Your task to perform on an android device: Find coffee shops on Maps Image 0: 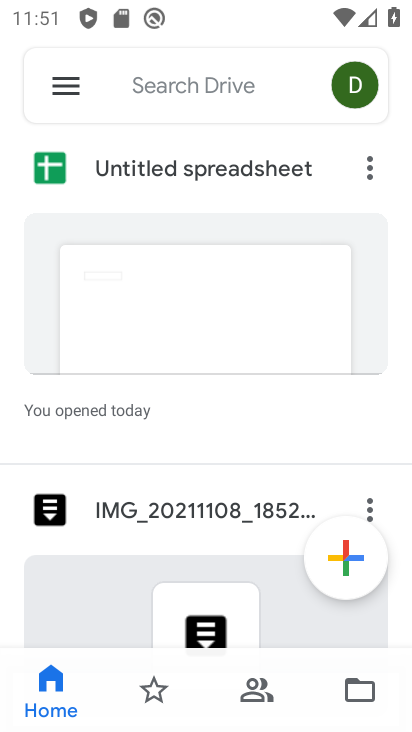
Step 0: press back button
Your task to perform on an android device: Find coffee shops on Maps Image 1: 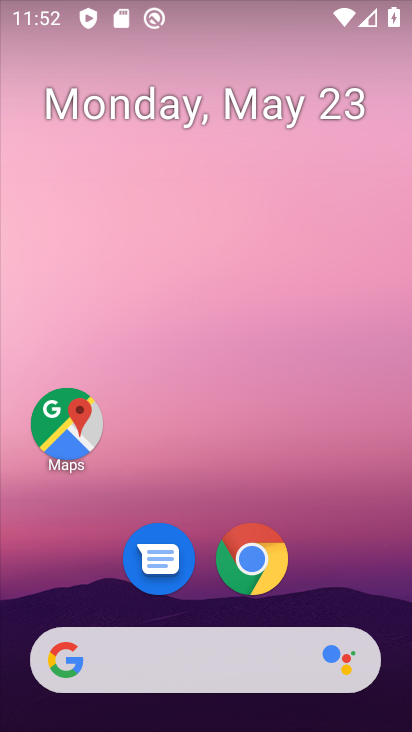
Step 1: drag from (272, 712) to (148, 9)
Your task to perform on an android device: Find coffee shops on Maps Image 2: 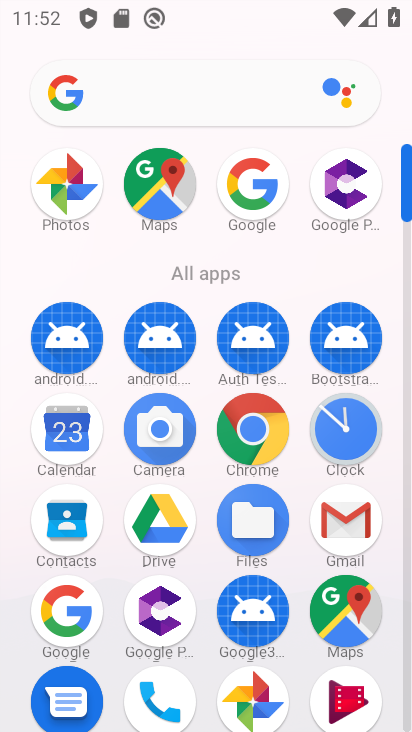
Step 2: drag from (235, 7) to (196, 3)
Your task to perform on an android device: Find coffee shops on Maps Image 3: 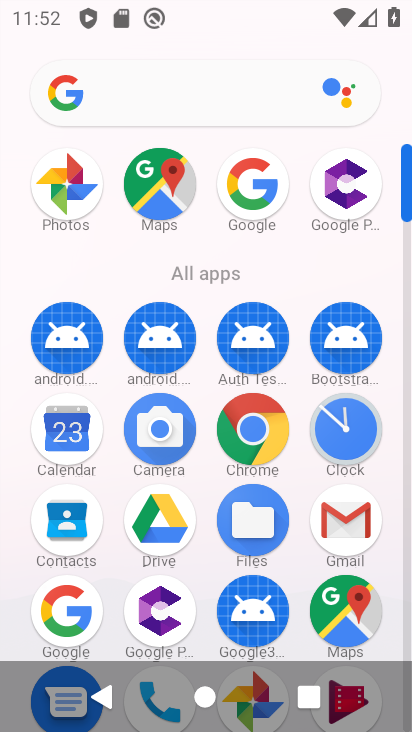
Step 3: click (348, 613)
Your task to perform on an android device: Find coffee shops on Maps Image 4: 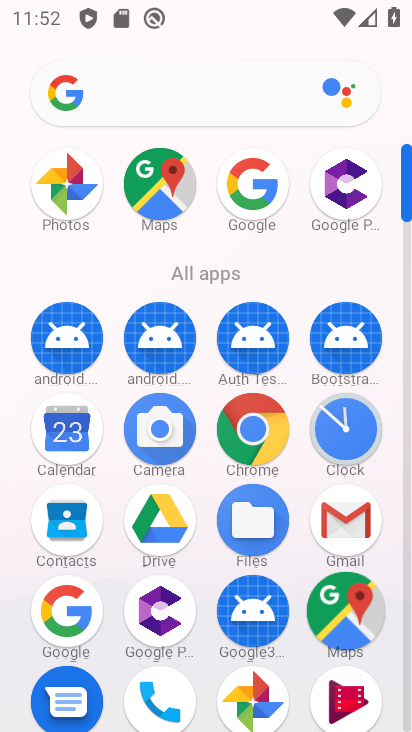
Step 4: click (354, 593)
Your task to perform on an android device: Find coffee shops on Maps Image 5: 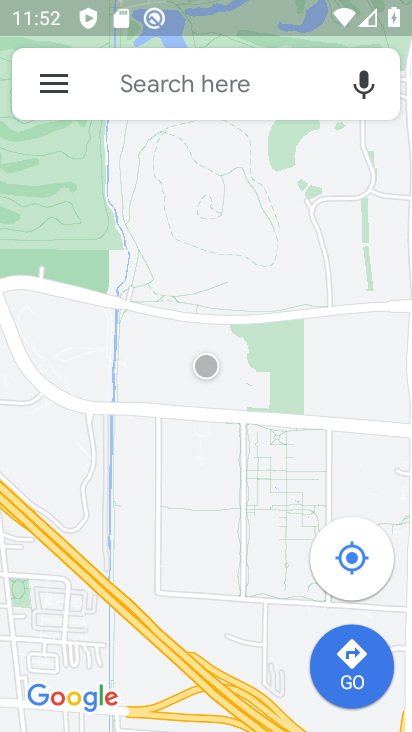
Step 5: click (66, 83)
Your task to perform on an android device: Find coffee shops on Maps Image 6: 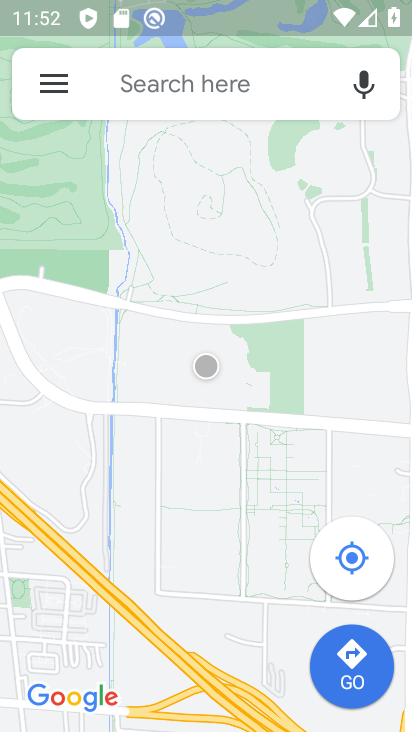
Step 6: click (115, 87)
Your task to perform on an android device: Find coffee shops on Maps Image 7: 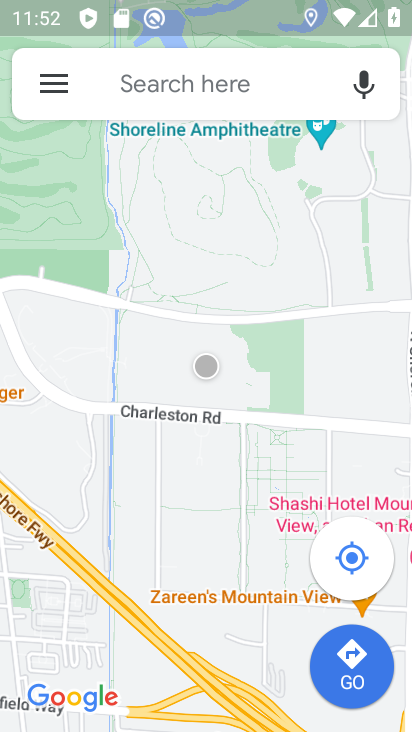
Step 7: click (158, 87)
Your task to perform on an android device: Find coffee shops on Maps Image 8: 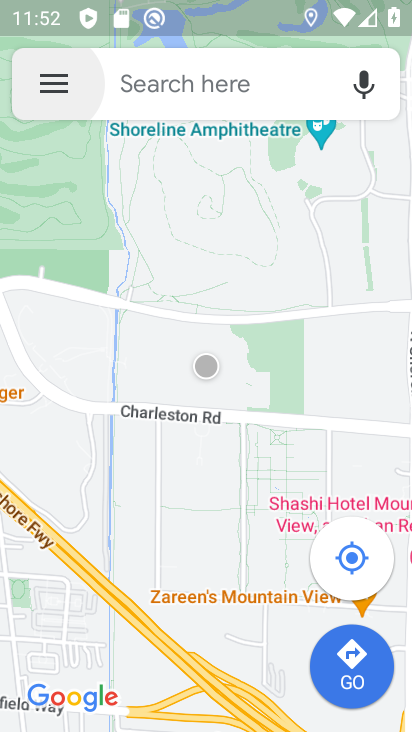
Step 8: click (153, 73)
Your task to perform on an android device: Find coffee shops on Maps Image 9: 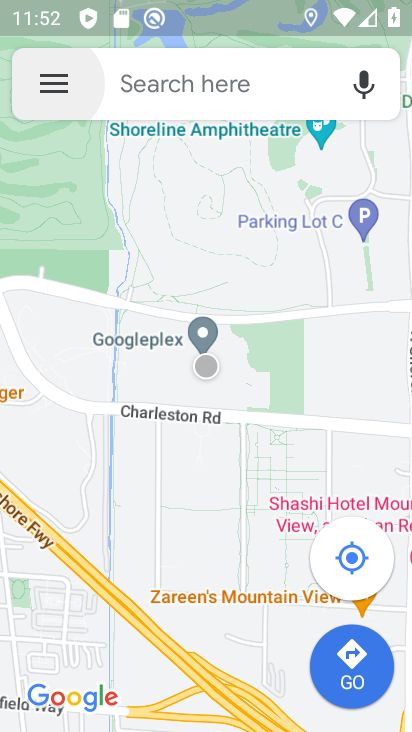
Step 9: click (153, 73)
Your task to perform on an android device: Find coffee shops on Maps Image 10: 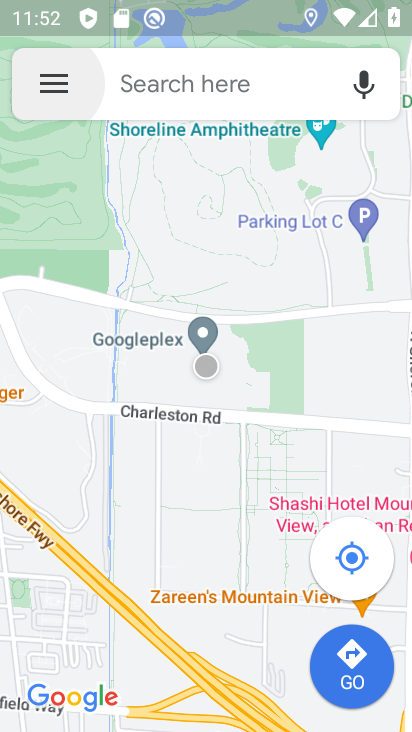
Step 10: click (140, 74)
Your task to perform on an android device: Find coffee shops on Maps Image 11: 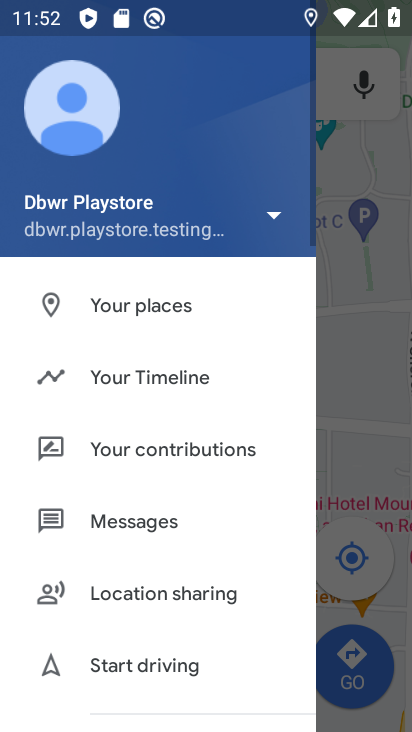
Step 11: click (123, 84)
Your task to perform on an android device: Find coffee shops on Maps Image 12: 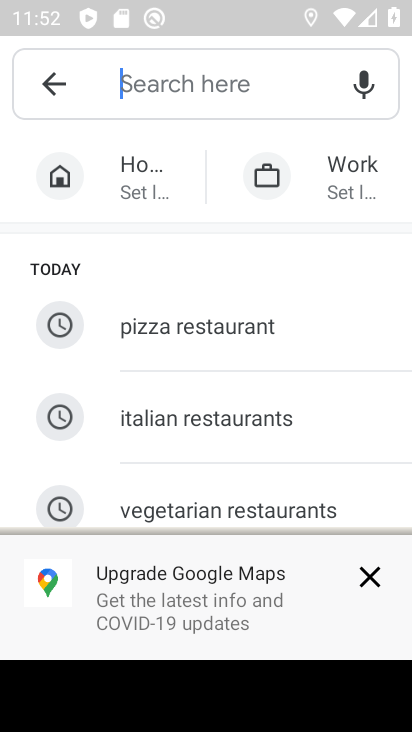
Step 12: type "coffee"
Your task to perform on an android device: Find coffee shops on Maps Image 13: 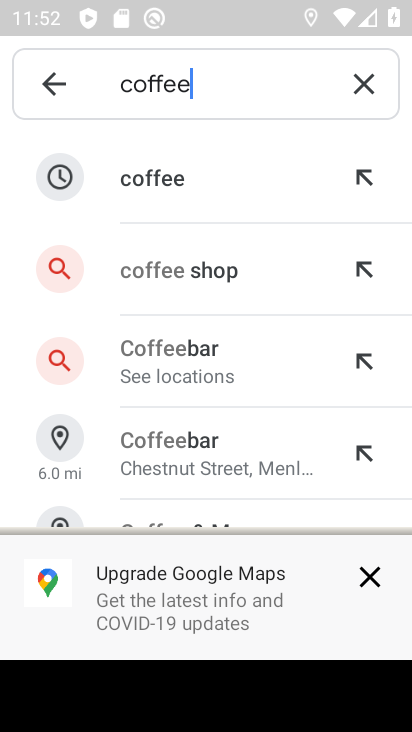
Step 13: click (151, 192)
Your task to perform on an android device: Find coffee shops on Maps Image 14: 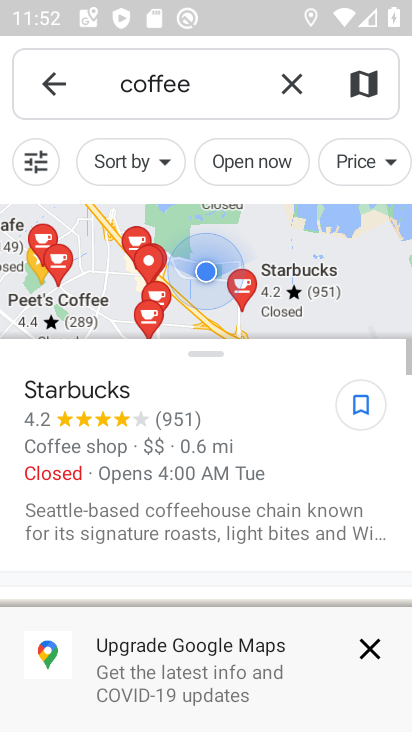
Step 14: task complete